Your task to perform on an android device: create a new album in the google photos Image 0: 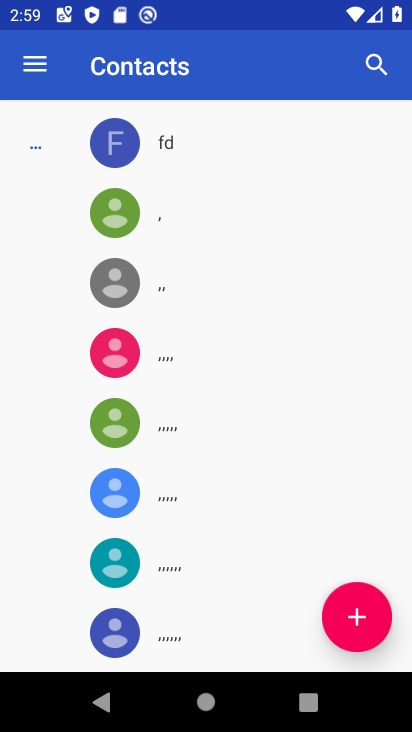
Step 0: press home button
Your task to perform on an android device: create a new album in the google photos Image 1: 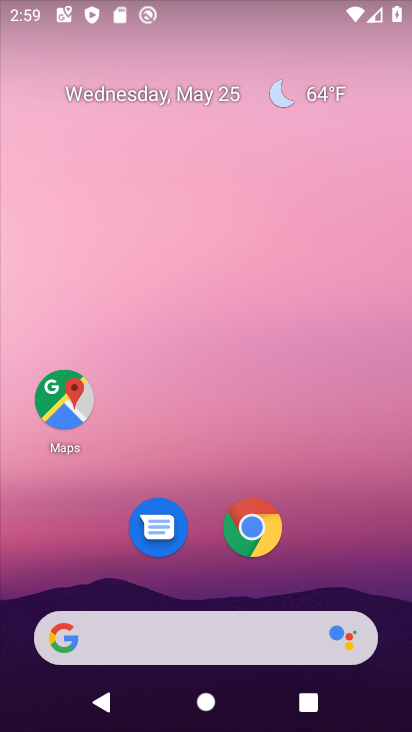
Step 1: drag from (194, 527) to (268, 40)
Your task to perform on an android device: create a new album in the google photos Image 2: 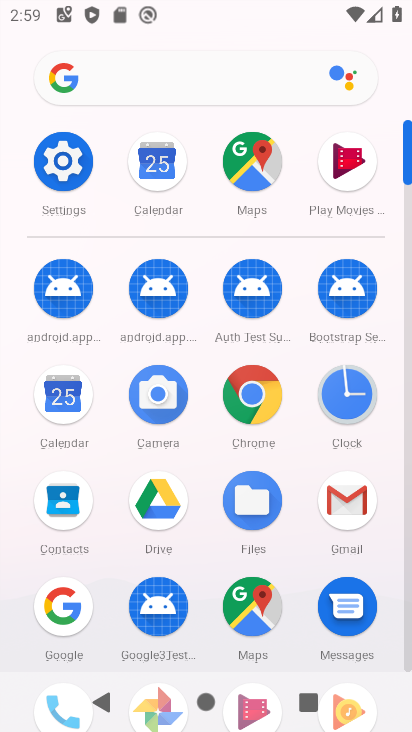
Step 2: drag from (193, 622) to (272, 225)
Your task to perform on an android device: create a new album in the google photos Image 3: 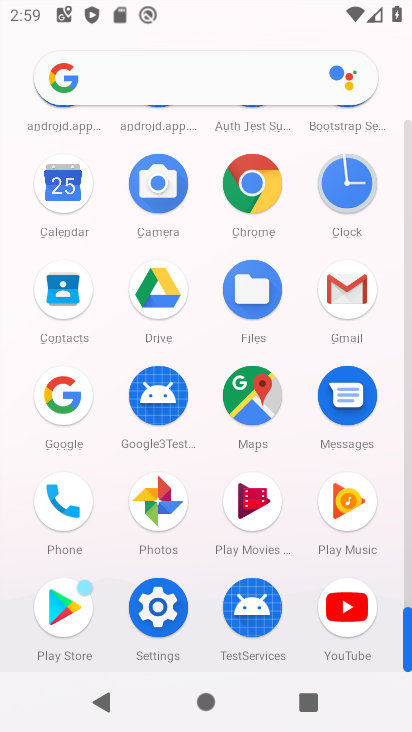
Step 3: click (156, 510)
Your task to perform on an android device: create a new album in the google photos Image 4: 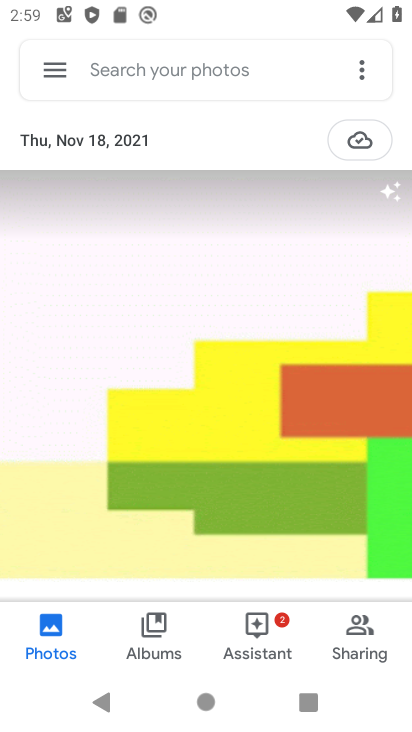
Step 4: click (364, 64)
Your task to perform on an android device: create a new album in the google photos Image 5: 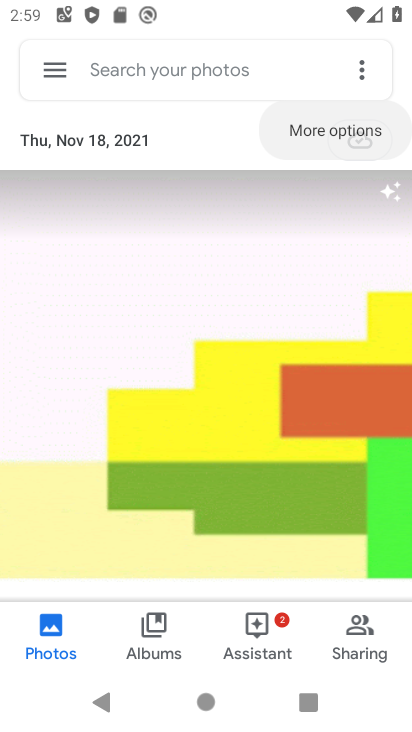
Step 5: click (364, 64)
Your task to perform on an android device: create a new album in the google photos Image 6: 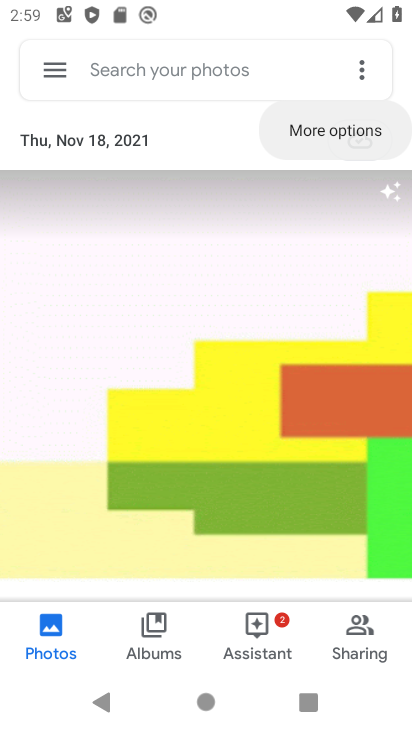
Step 6: click (364, 64)
Your task to perform on an android device: create a new album in the google photos Image 7: 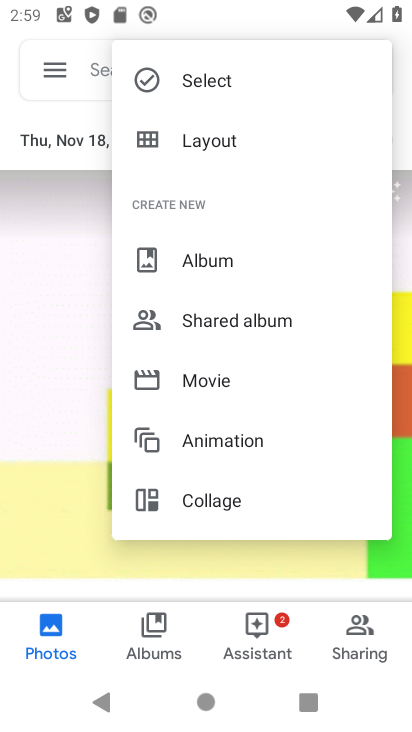
Step 7: click (206, 258)
Your task to perform on an android device: create a new album in the google photos Image 8: 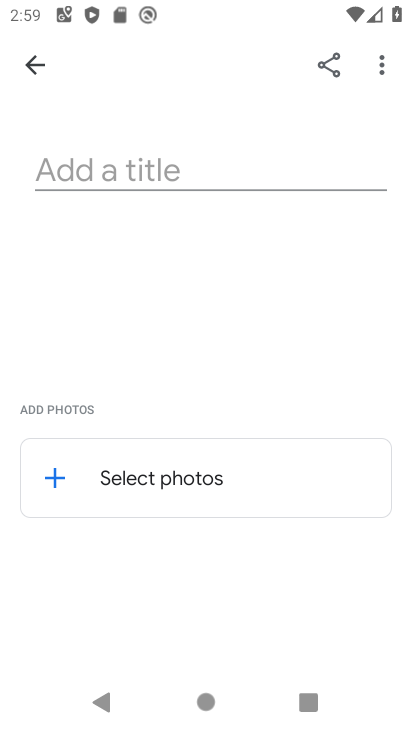
Step 8: click (104, 168)
Your task to perform on an android device: create a new album in the google photos Image 9: 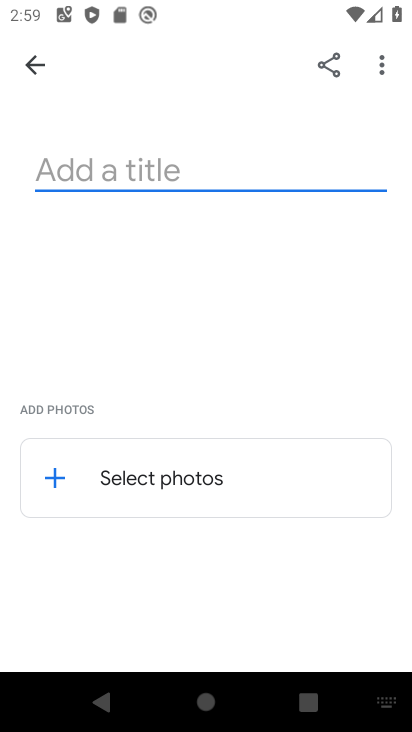
Step 9: type "gfdgf"
Your task to perform on an android device: create a new album in the google photos Image 10: 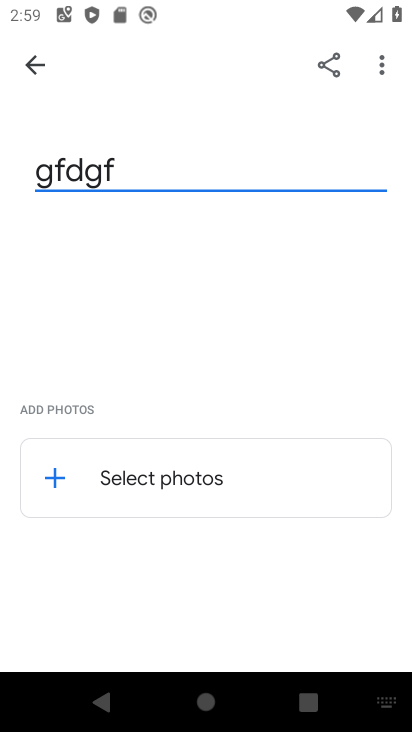
Step 10: click (158, 468)
Your task to perform on an android device: create a new album in the google photos Image 11: 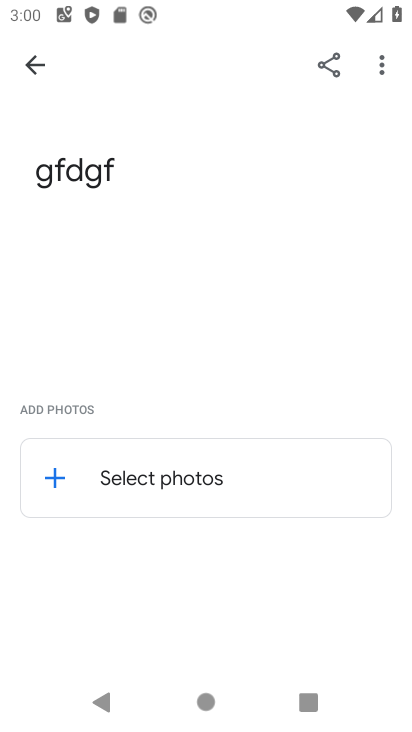
Step 11: click (137, 470)
Your task to perform on an android device: create a new album in the google photos Image 12: 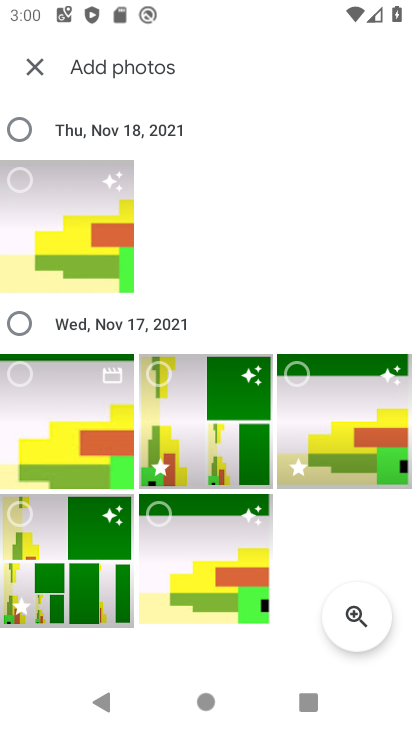
Step 12: click (18, 125)
Your task to perform on an android device: create a new album in the google photos Image 13: 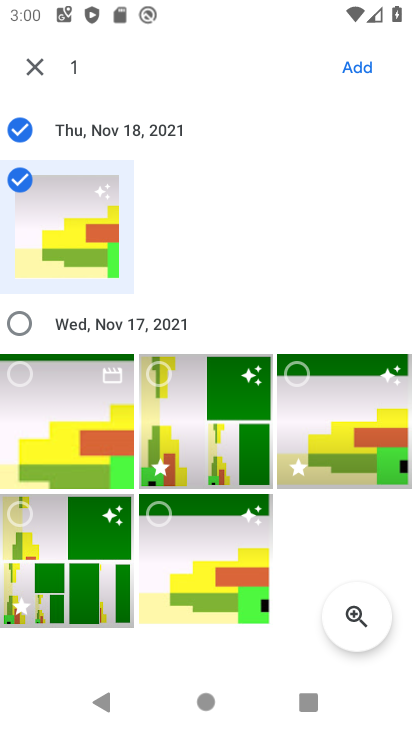
Step 13: click (13, 315)
Your task to perform on an android device: create a new album in the google photos Image 14: 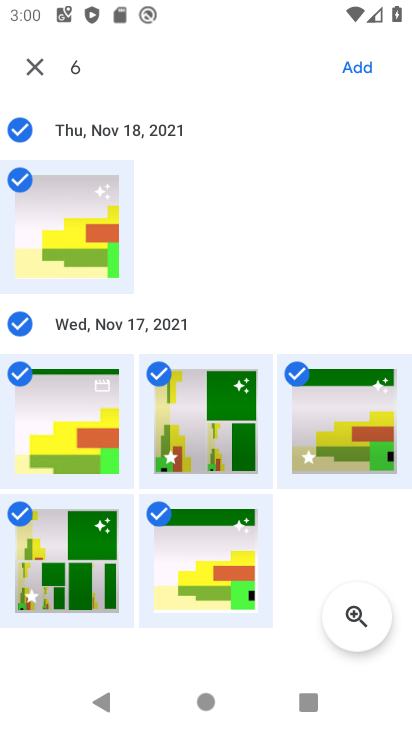
Step 14: click (349, 70)
Your task to perform on an android device: create a new album in the google photos Image 15: 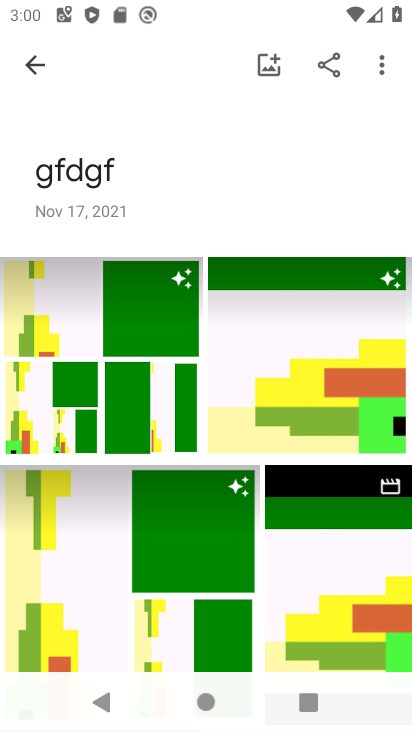
Step 15: task complete